Your task to perform on an android device: What's the weather today? Image 0: 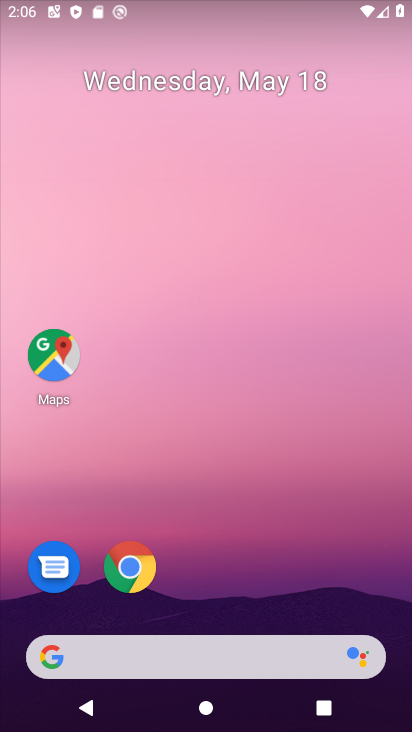
Step 0: drag from (286, 611) to (280, 99)
Your task to perform on an android device: What's the weather today? Image 1: 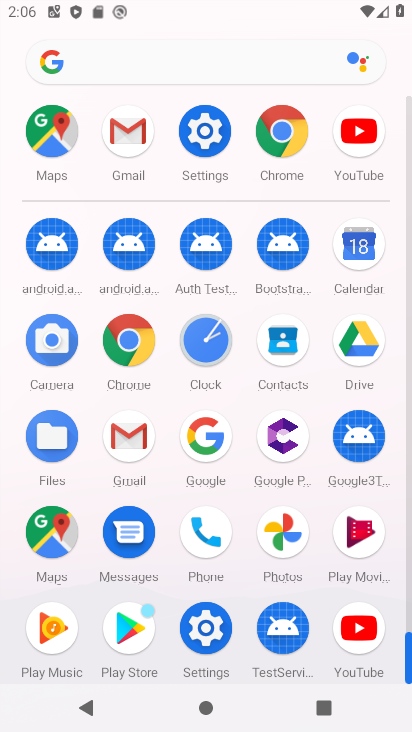
Step 1: click (270, 145)
Your task to perform on an android device: What's the weather today? Image 2: 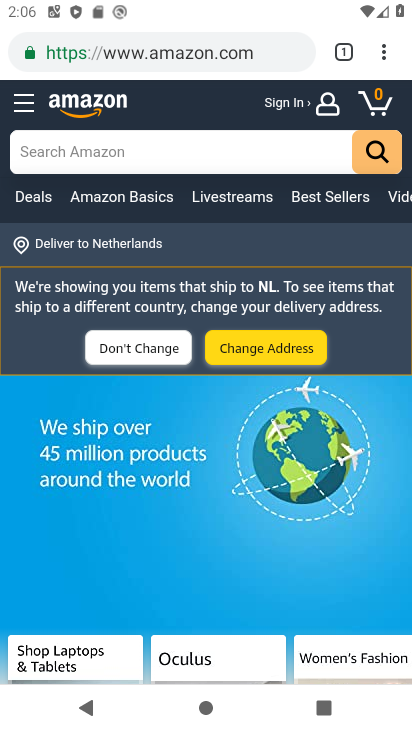
Step 2: click (237, 54)
Your task to perform on an android device: What's the weather today? Image 3: 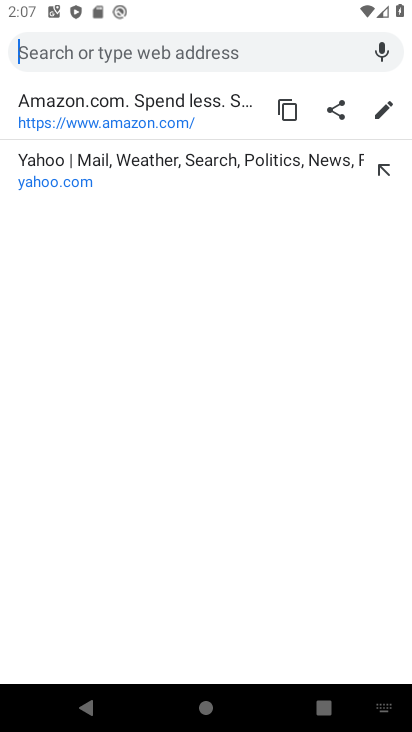
Step 3: type "weather"
Your task to perform on an android device: What's the weather today? Image 4: 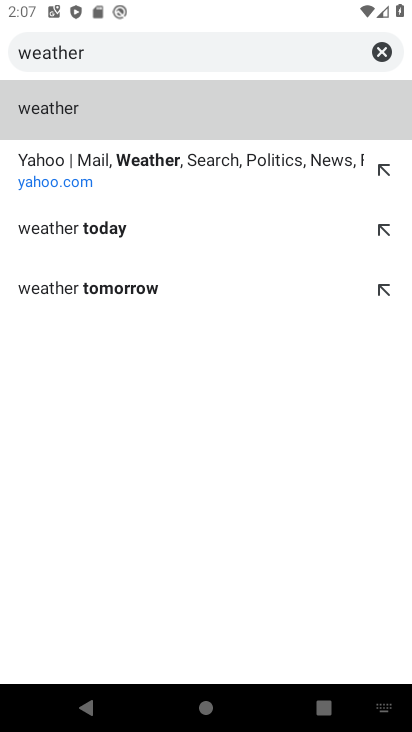
Step 4: click (57, 93)
Your task to perform on an android device: What's the weather today? Image 5: 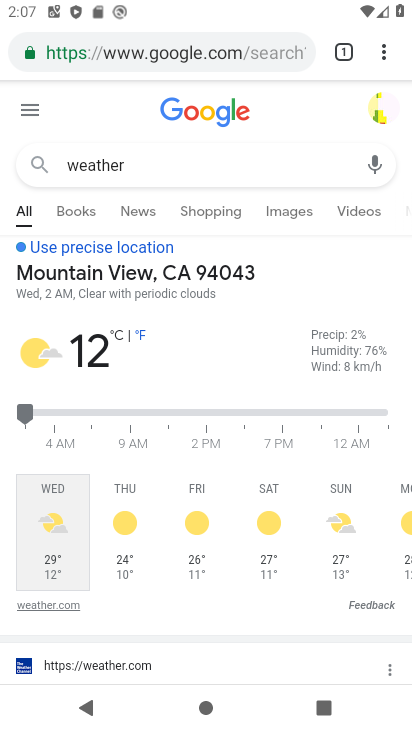
Step 5: task complete